Your task to perform on an android device: remove spam from my inbox in the gmail app Image 0: 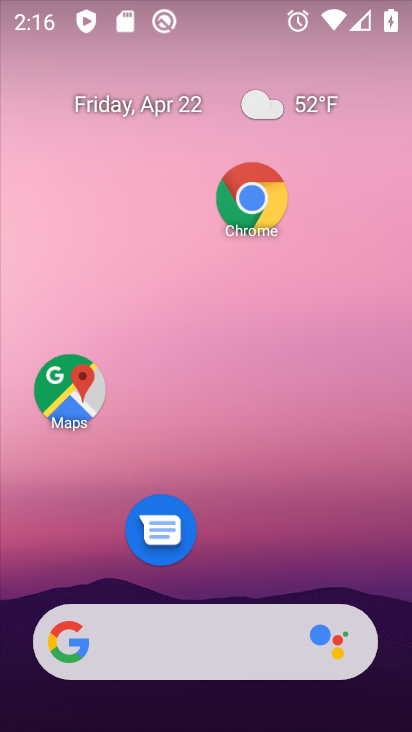
Step 0: drag from (221, 391) to (244, 7)
Your task to perform on an android device: remove spam from my inbox in the gmail app Image 1: 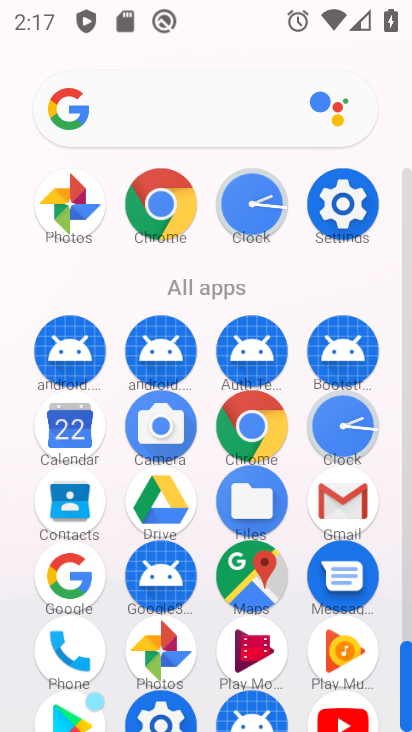
Step 1: click (341, 493)
Your task to perform on an android device: remove spam from my inbox in the gmail app Image 2: 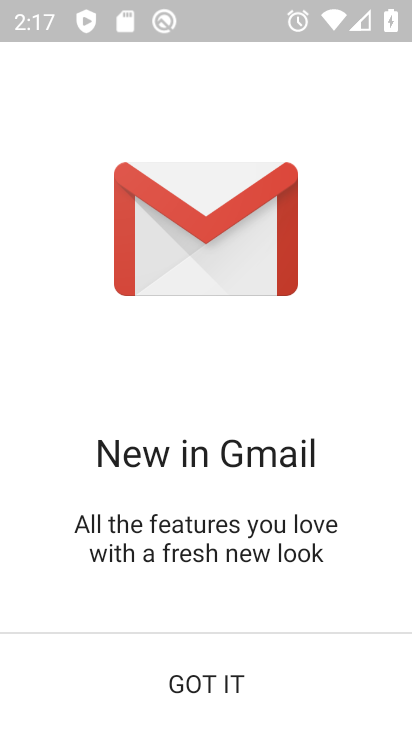
Step 2: click (195, 698)
Your task to perform on an android device: remove spam from my inbox in the gmail app Image 3: 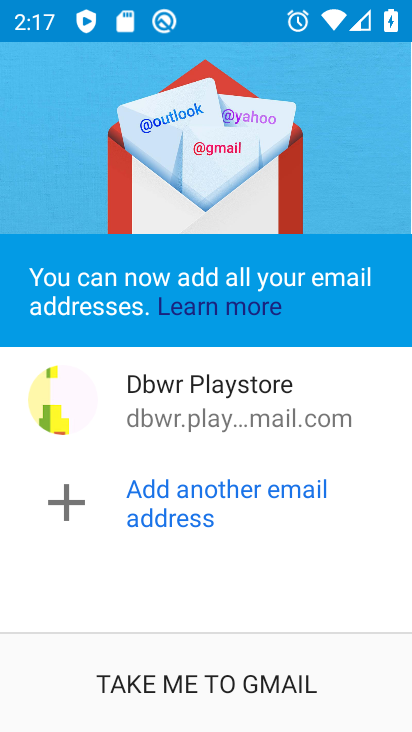
Step 3: click (197, 698)
Your task to perform on an android device: remove spam from my inbox in the gmail app Image 4: 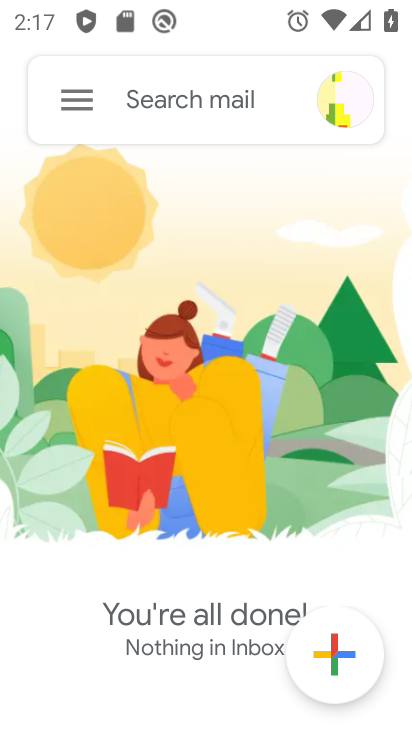
Step 4: click (72, 86)
Your task to perform on an android device: remove spam from my inbox in the gmail app Image 5: 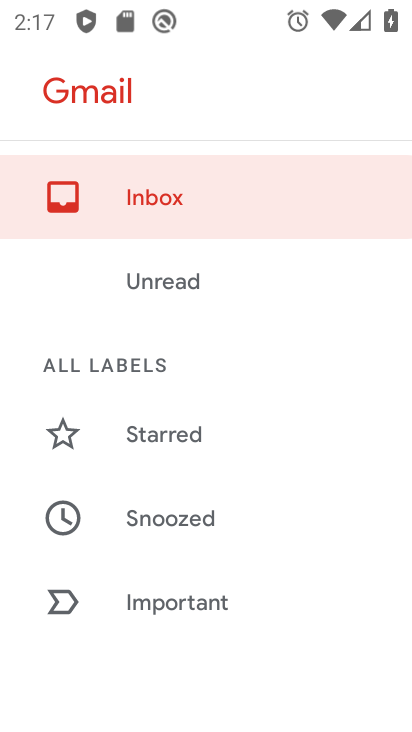
Step 5: drag from (189, 457) to (237, 123)
Your task to perform on an android device: remove spam from my inbox in the gmail app Image 6: 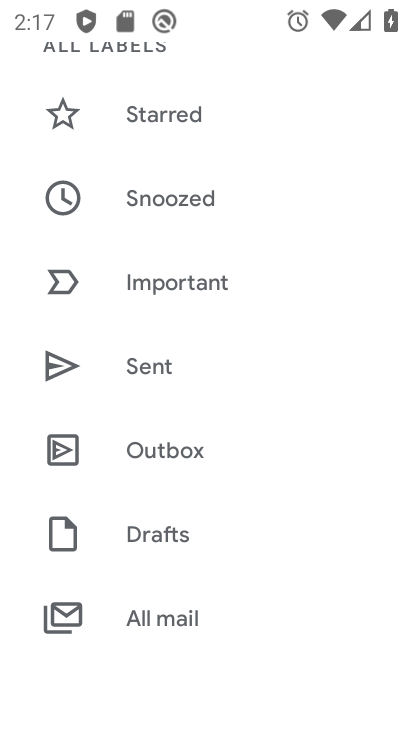
Step 6: drag from (194, 607) to (224, 192)
Your task to perform on an android device: remove spam from my inbox in the gmail app Image 7: 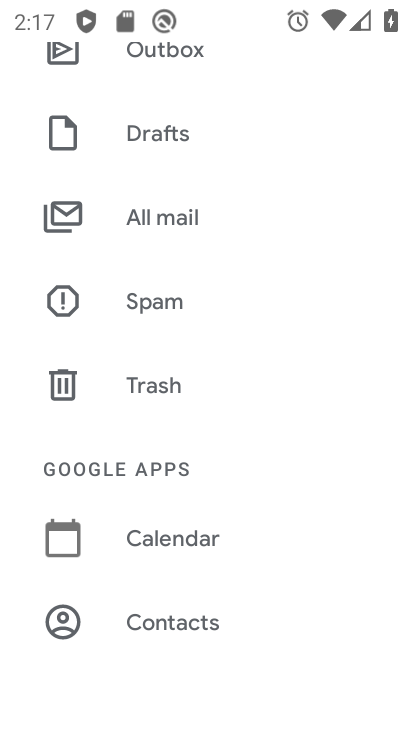
Step 7: click (185, 295)
Your task to perform on an android device: remove spam from my inbox in the gmail app Image 8: 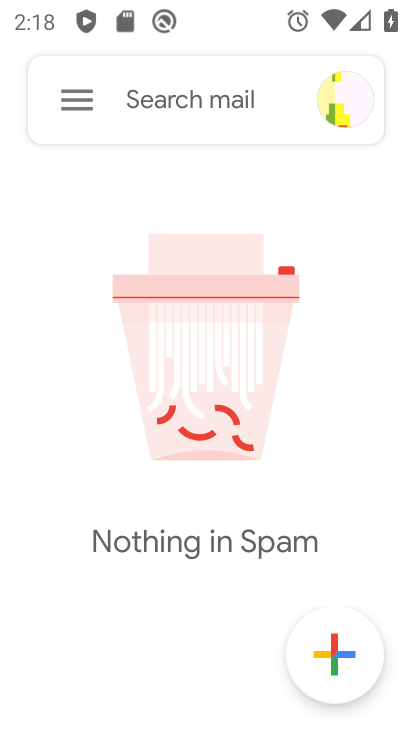
Step 8: task complete